Your task to perform on an android device: delete browsing data in the chrome app Image 0: 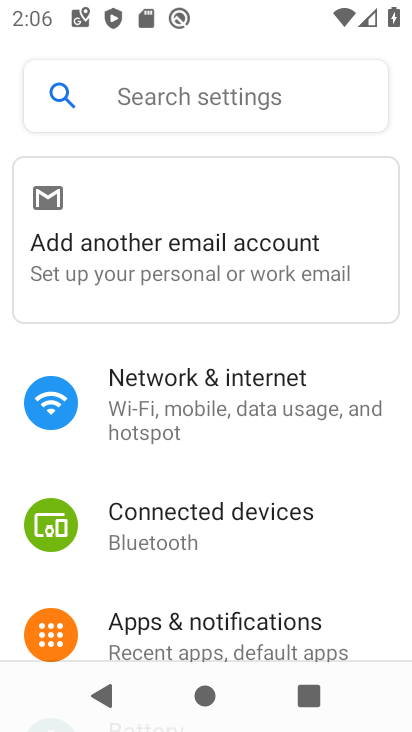
Step 0: press home button
Your task to perform on an android device: delete browsing data in the chrome app Image 1: 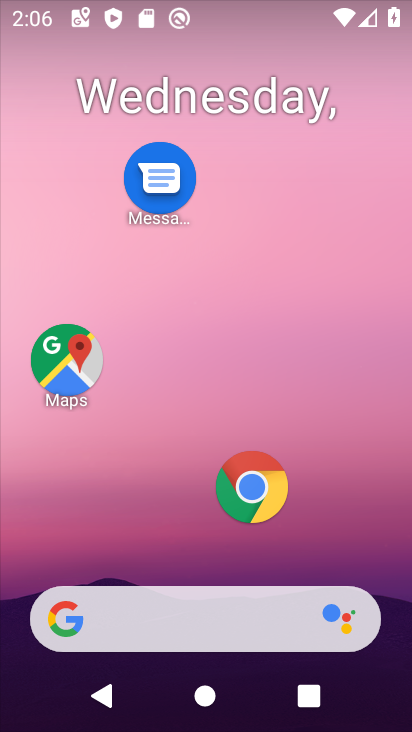
Step 1: click (247, 504)
Your task to perform on an android device: delete browsing data in the chrome app Image 2: 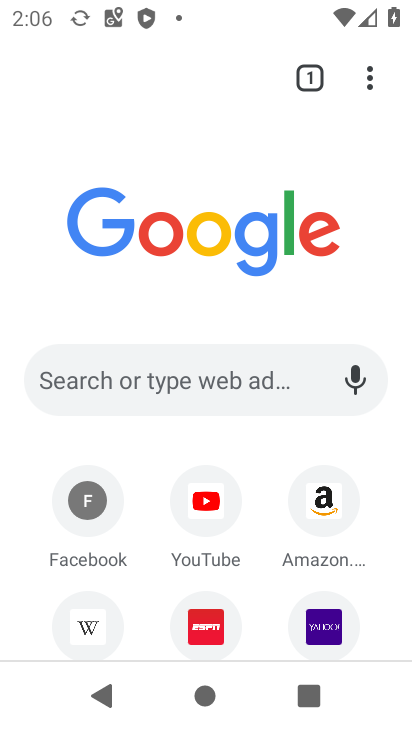
Step 2: click (363, 71)
Your task to perform on an android device: delete browsing data in the chrome app Image 3: 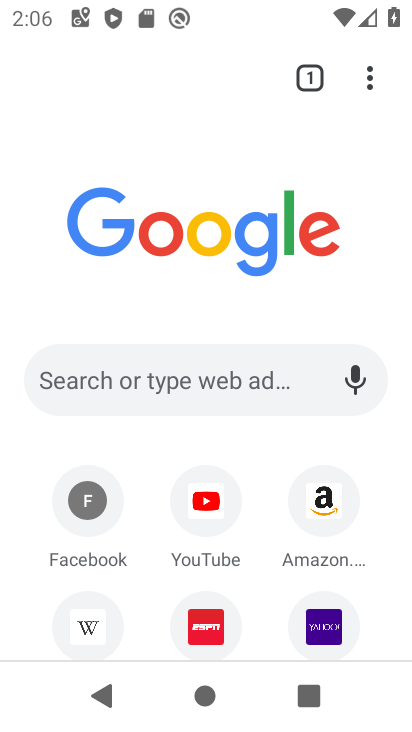
Step 3: task complete